Your task to perform on an android device: Go to location settings Image 0: 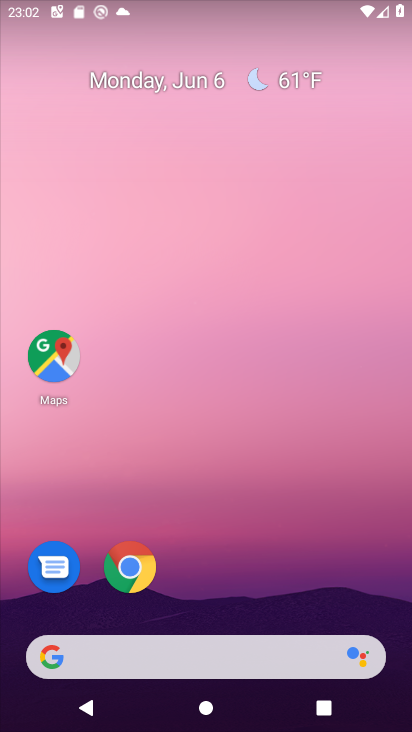
Step 0: drag from (241, 725) to (183, 0)
Your task to perform on an android device: Go to location settings Image 1: 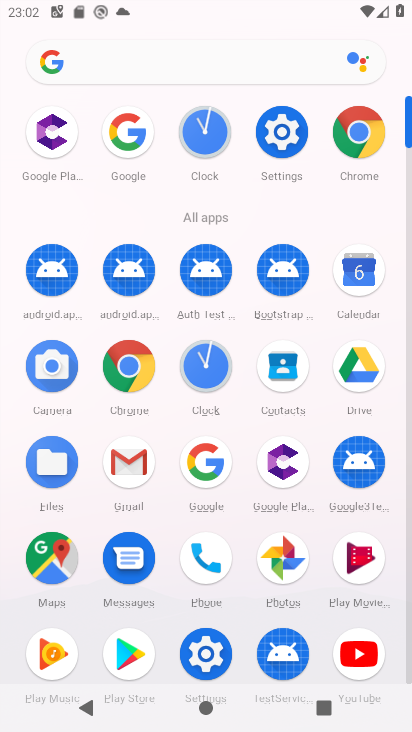
Step 1: click (287, 134)
Your task to perform on an android device: Go to location settings Image 2: 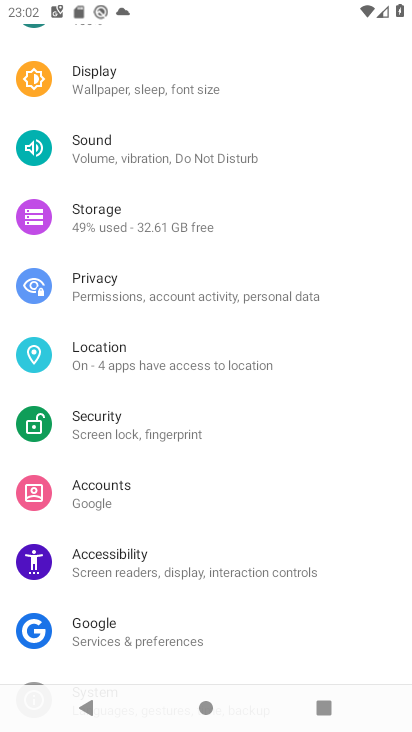
Step 2: click (89, 358)
Your task to perform on an android device: Go to location settings Image 3: 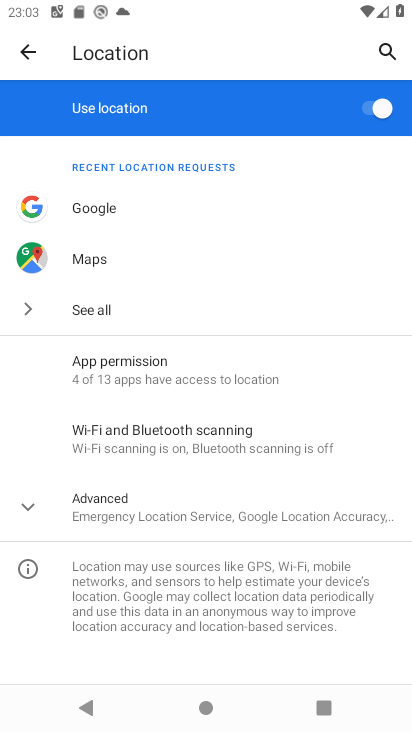
Step 3: task complete